Your task to perform on an android device: move an email to a new category in the gmail app Image 0: 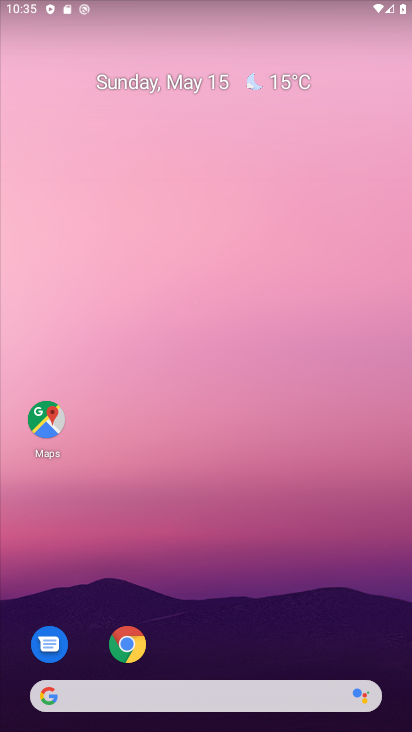
Step 0: drag from (217, 109) to (205, 56)
Your task to perform on an android device: move an email to a new category in the gmail app Image 1: 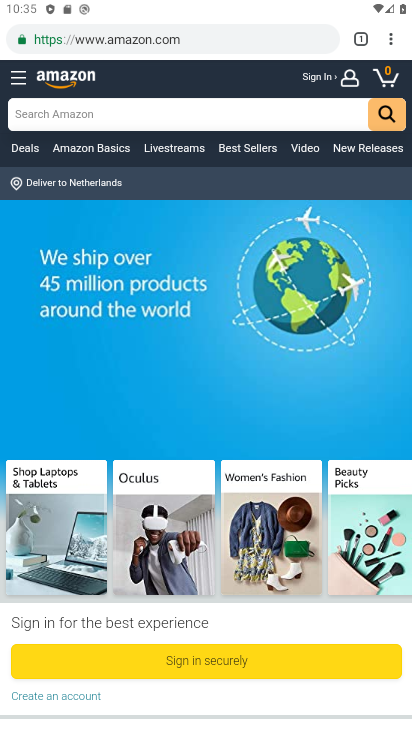
Step 1: press home button
Your task to perform on an android device: move an email to a new category in the gmail app Image 2: 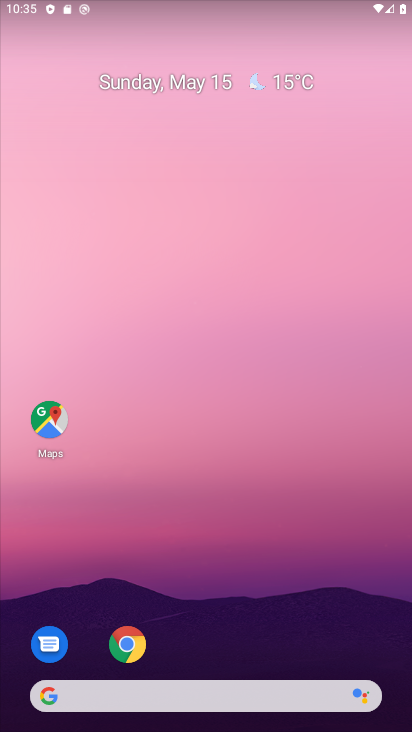
Step 2: drag from (293, 614) to (157, 34)
Your task to perform on an android device: move an email to a new category in the gmail app Image 3: 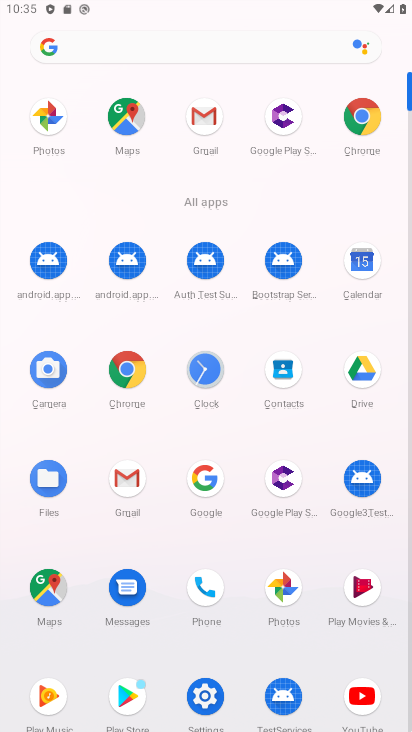
Step 3: click (203, 121)
Your task to perform on an android device: move an email to a new category in the gmail app Image 4: 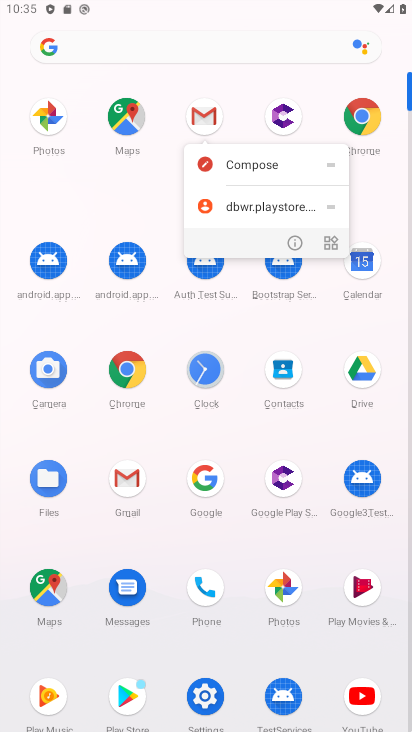
Step 4: click (210, 111)
Your task to perform on an android device: move an email to a new category in the gmail app Image 5: 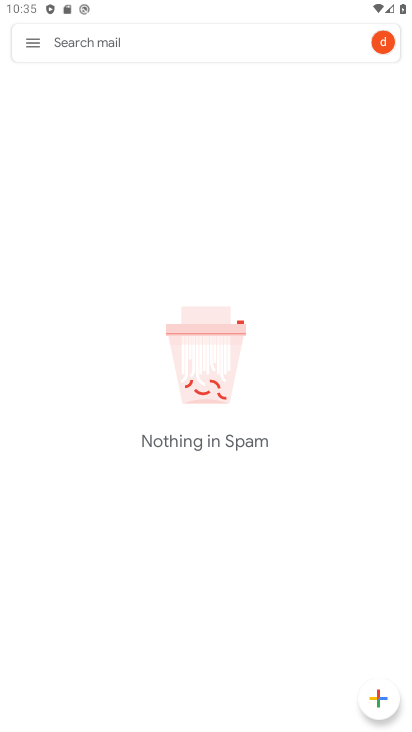
Step 5: click (28, 38)
Your task to perform on an android device: move an email to a new category in the gmail app Image 6: 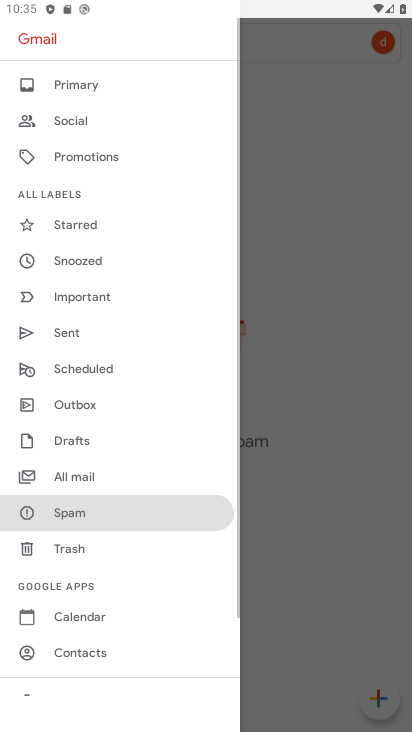
Step 6: click (99, 470)
Your task to perform on an android device: move an email to a new category in the gmail app Image 7: 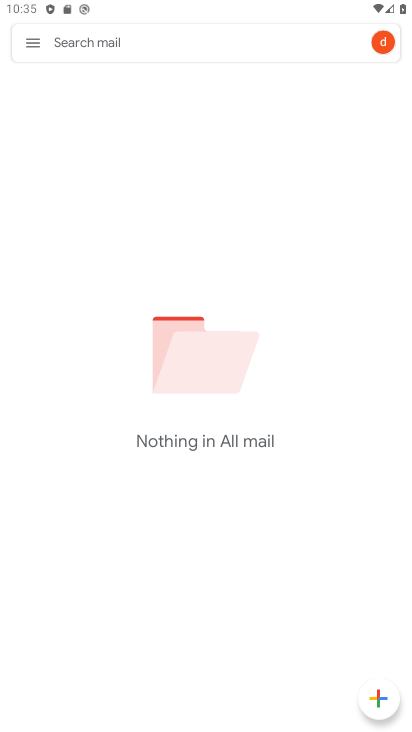
Step 7: task complete